Your task to perform on an android device: turn on showing notifications on the lock screen Image 0: 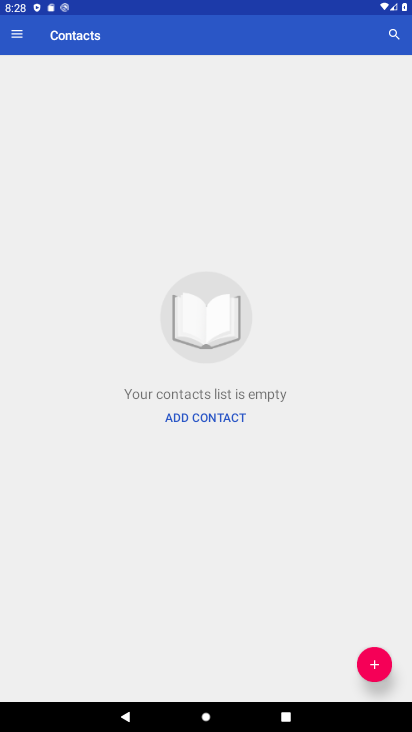
Step 0: press home button
Your task to perform on an android device: turn on showing notifications on the lock screen Image 1: 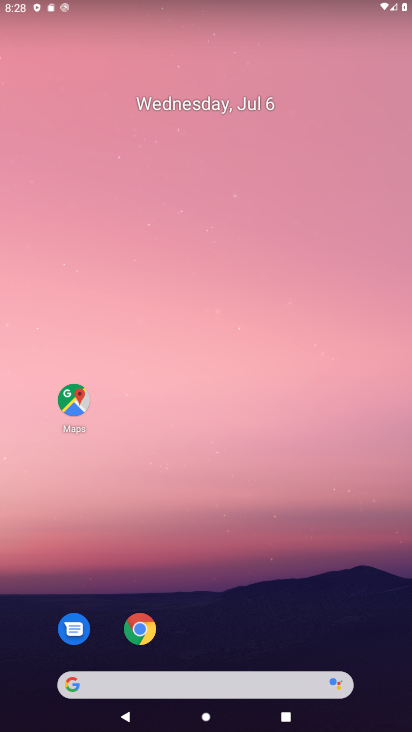
Step 1: drag from (190, 527) to (140, 165)
Your task to perform on an android device: turn on showing notifications on the lock screen Image 2: 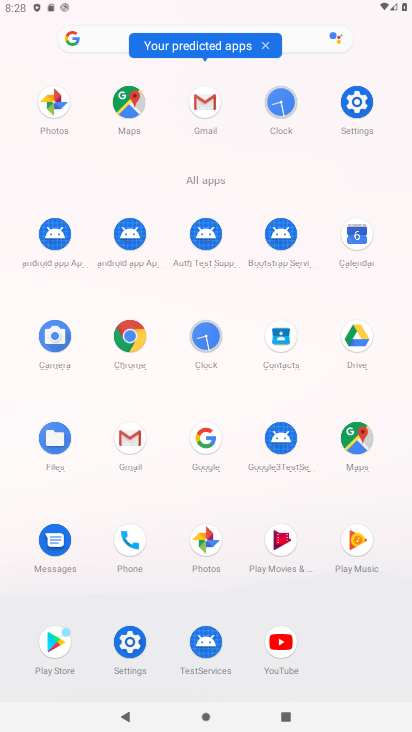
Step 2: click (357, 103)
Your task to perform on an android device: turn on showing notifications on the lock screen Image 3: 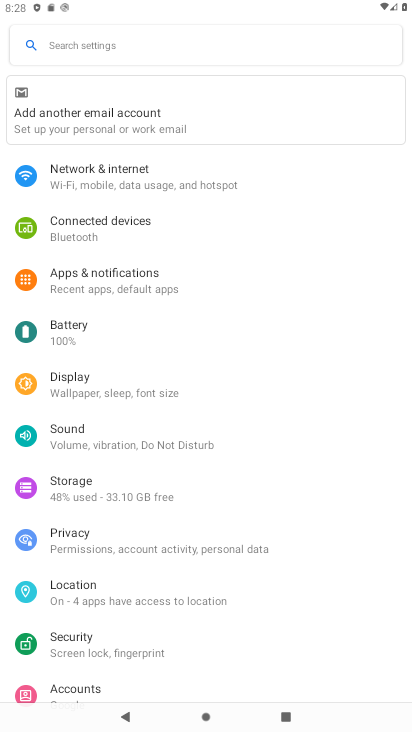
Step 3: drag from (108, 346) to (142, 290)
Your task to perform on an android device: turn on showing notifications on the lock screen Image 4: 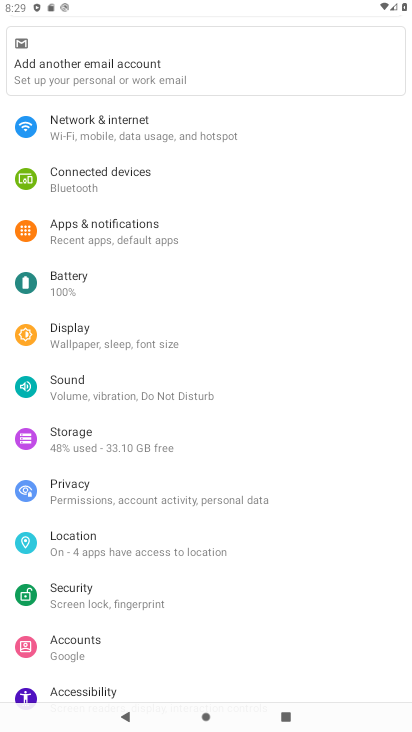
Step 4: click (133, 241)
Your task to perform on an android device: turn on showing notifications on the lock screen Image 5: 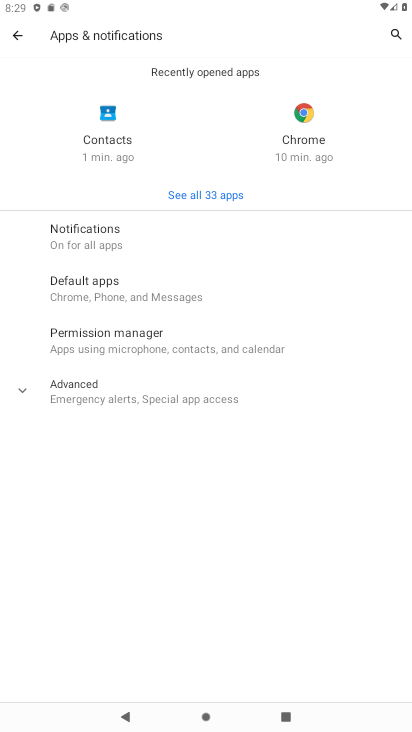
Step 5: click (82, 226)
Your task to perform on an android device: turn on showing notifications on the lock screen Image 6: 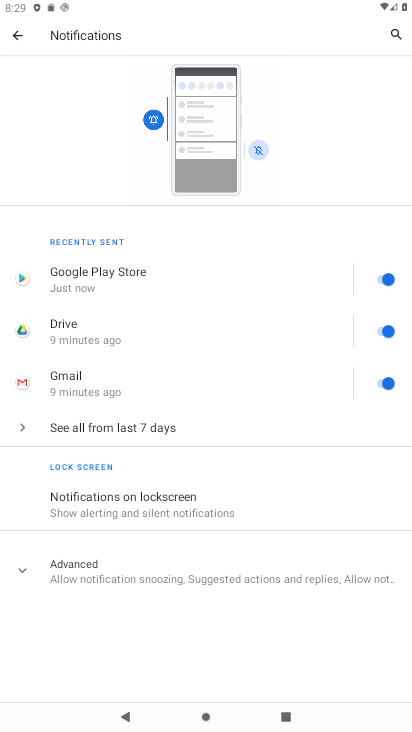
Step 6: click (180, 508)
Your task to perform on an android device: turn on showing notifications on the lock screen Image 7: 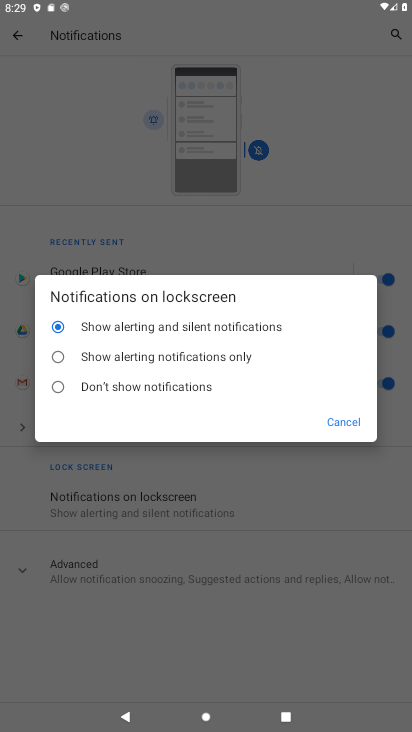
Step 7: click (207, 326)
Your task to perform on an android device: turn on showing notifications on the lock screen Image 8: 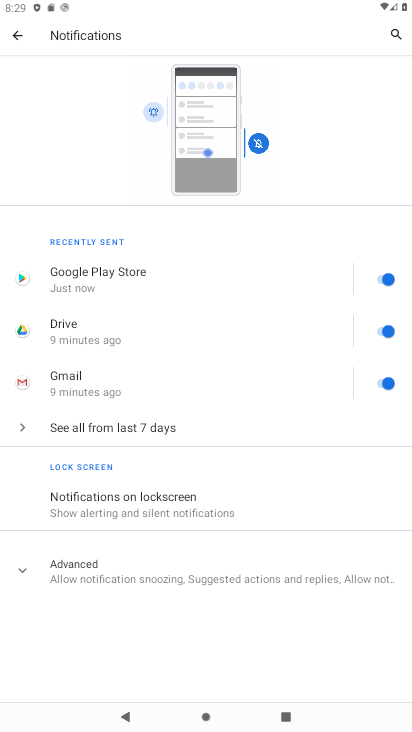
Step 8: task complete